Your task to perform on an android device: read, delete, or share a saved page in the chrome app Image 0: 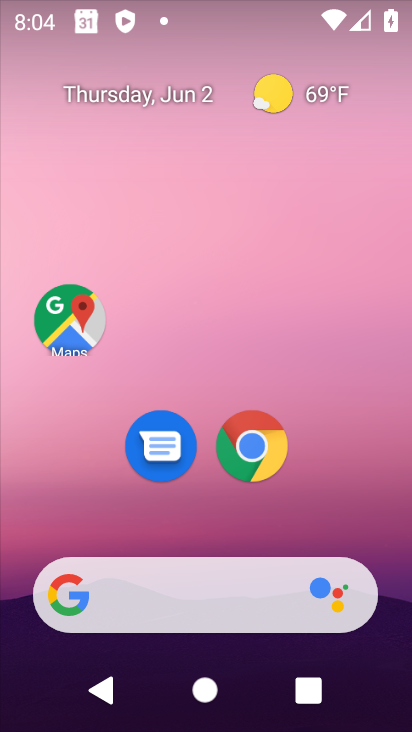
Step 0: click (249, 450)
Your task to perform on an android device: read, delete, or share a saved page in the chrome app Image 1: 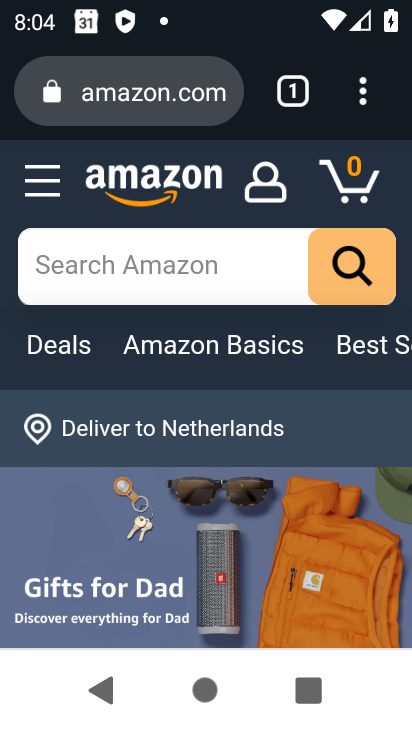
Step 1: drag from (355, 84) to (132, 352)
Your task to perform on an android device: read, delete, or share a saved page in the chrome app Image 2: 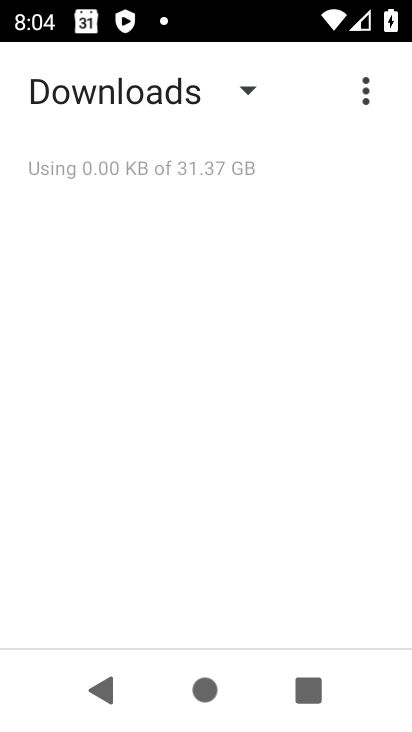
Step 2: click (231, 92)
Your task to perform on an android device: read, delete, or share a saved page in the chrome app Image 3: 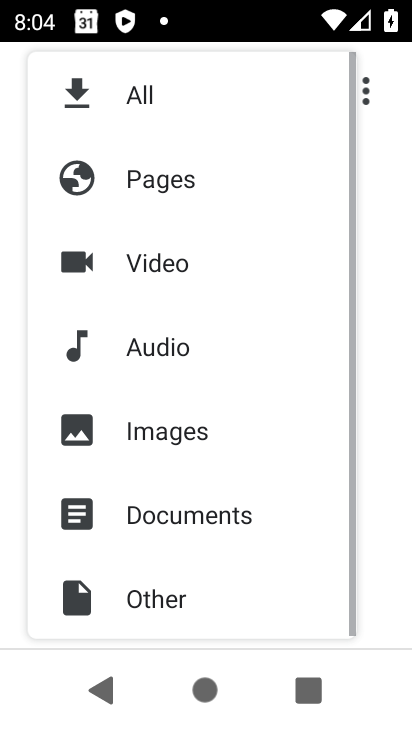
Step 3: click (190, 175)
Your task to perform on an android device: read, delete, or share a saved page in the chrome app Image 4: 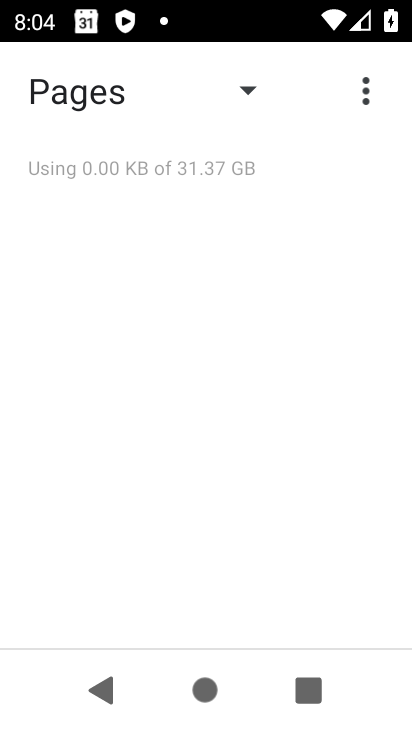
Step 4: task complete